Your task to perform on an android device: set the timer Image 0: 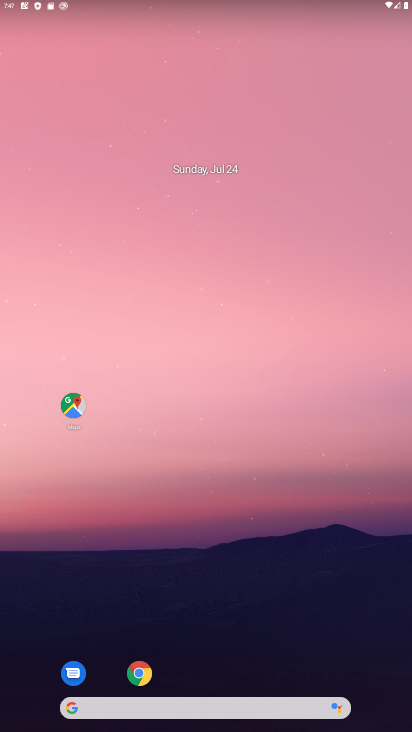
Step 0: drag from (260, 636) to (267, 373)
Your task to perform on an android device: set the timer Image 1: 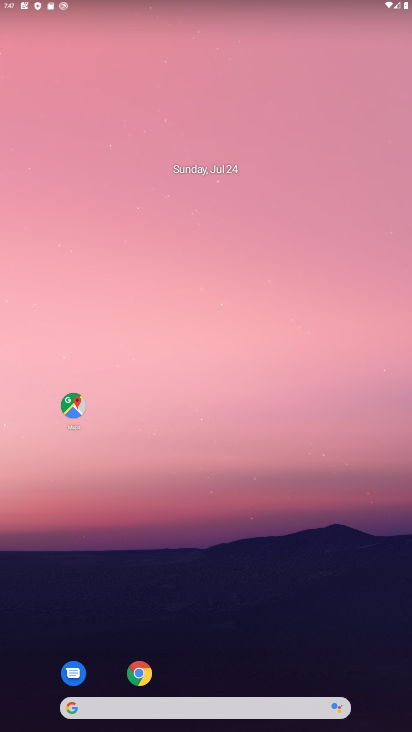
Step 1: drag from (168, 677) to (21, 421)
Your task to perform on an android device: set the timer Image 2: 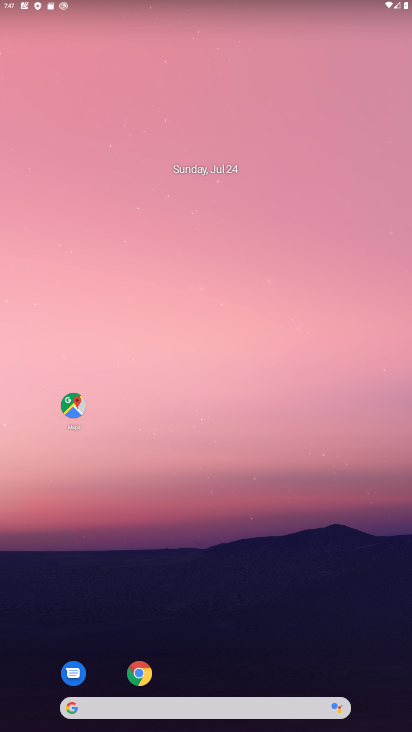
Step 2: drag from (171, 652) to (203, 162)
Your task to perform on an android device: set the timer Image 3: 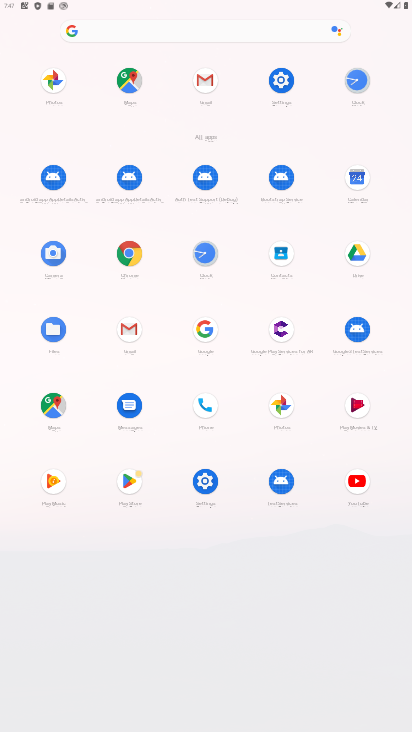
Step 3: click (206, 258)
Your task to perform on an android device: set the timer Image 4: 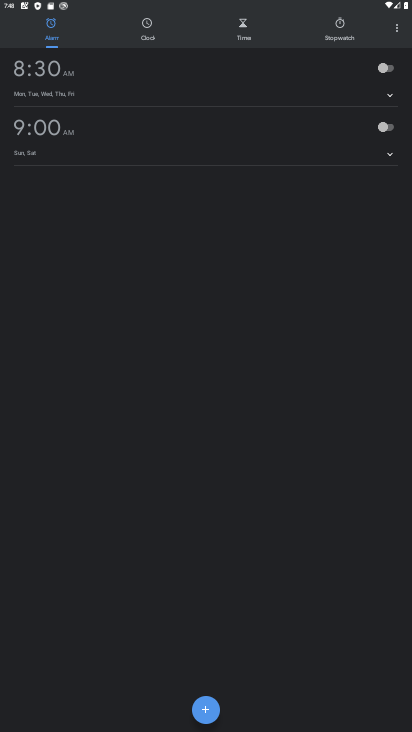
Step 4: click (235, 26)
Your task to perform on an android device: set the timer Image 5: 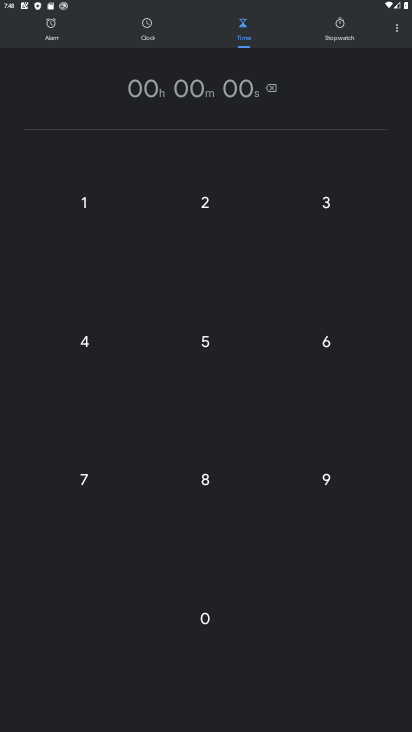
Step 5: click (225, 348)
Your task to perform on an android device: set the timer Image 6: 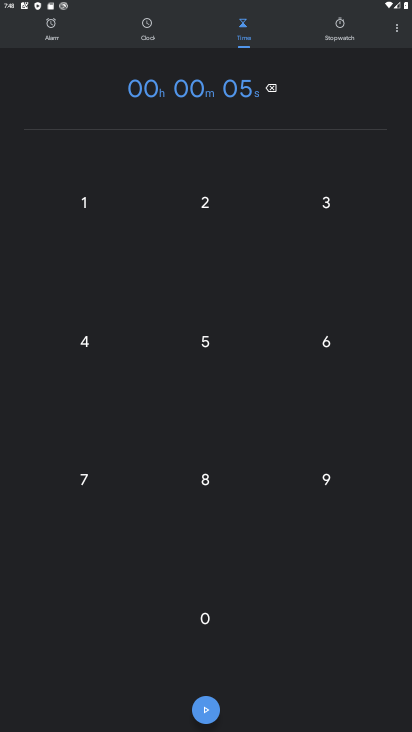
Step 6: click (203, 713)
Your task to perform on an android device: set the timer Image 7: 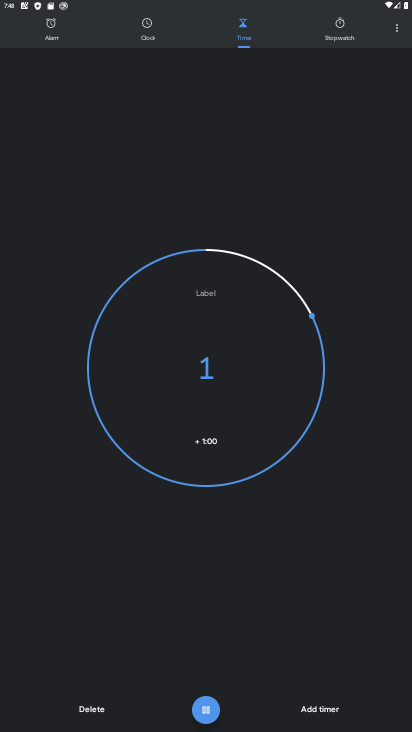
Step 7: task complete